Your task to perform on an android device: Open sound settings Image 0: 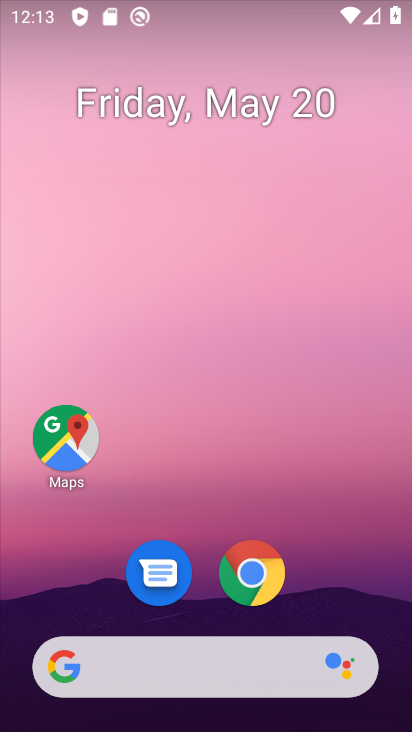
Step 0: drag from (327, 523) to (227, 62)
Your task to perform on an android device: Open sound settings Image 1: 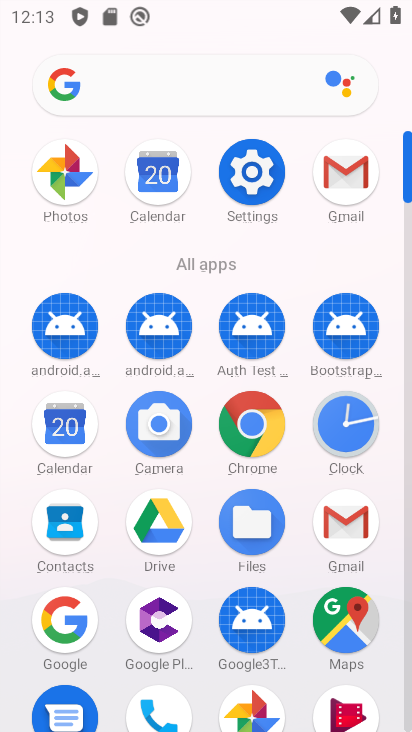
Step 1: click (244, 161)
Your task to perform on an android device: Open sound settings Image 2: 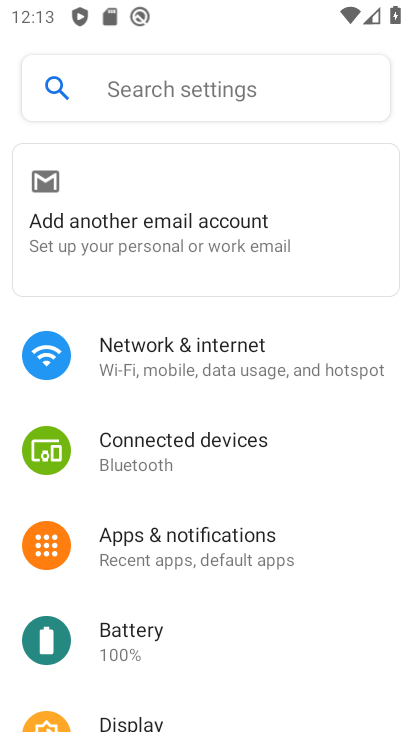
Step 2: drag from (244, 518) to (197, 99)
Your task to perform on an android device: Open sound settings Image 3: 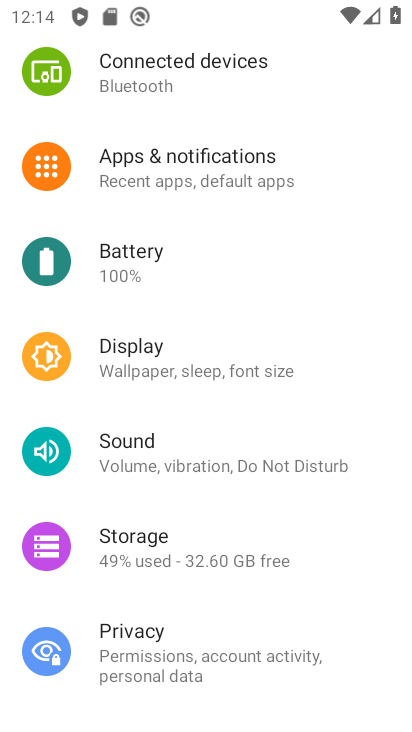
Step 3: drag from (209, 571) to (184, 270)
Your task to perform on an android device: Open sound settings Image 4: 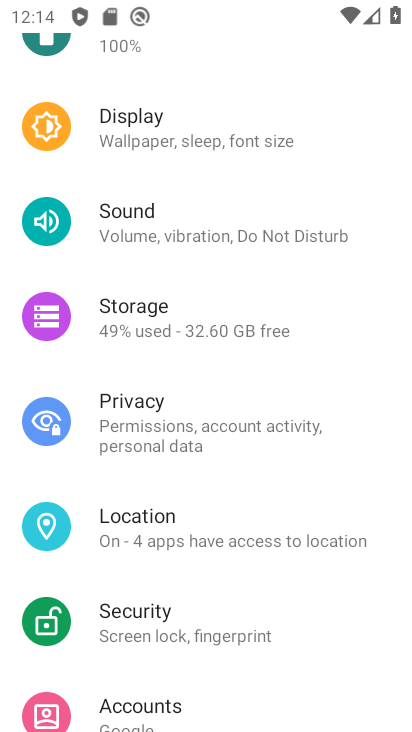
Step 4: drag from (171, 573) to (148, 308)
Your task to perform on an android device: Open sound settings Image 5: 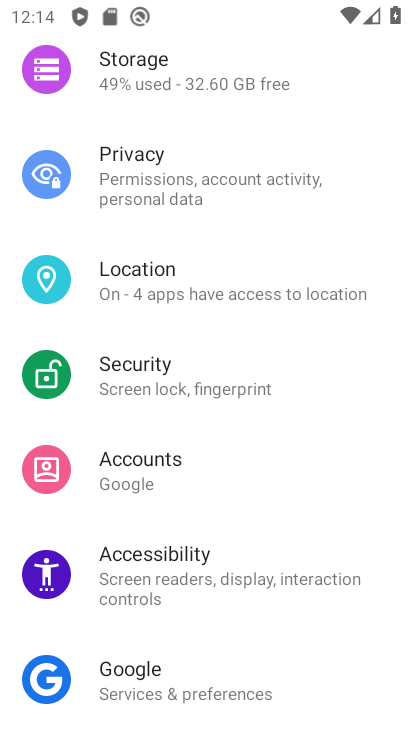
Step 5: drag from (216, 266) to (206, 687)
Your task to perform on an android device: Open sound settings Image 6: 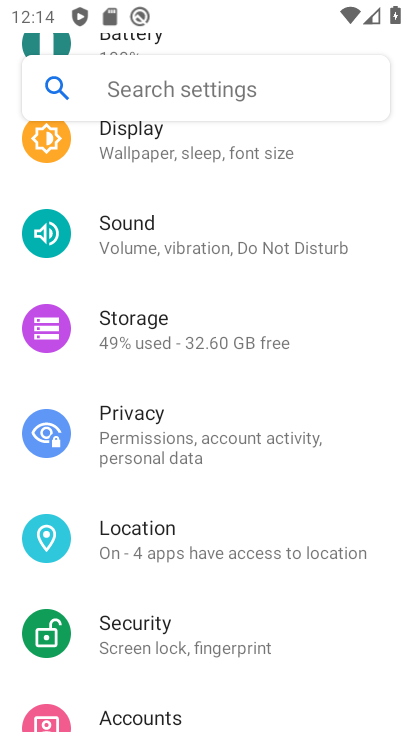
Step 6: click (135, 230)
Your task to perform on an android device: Open sound settings Image 7: 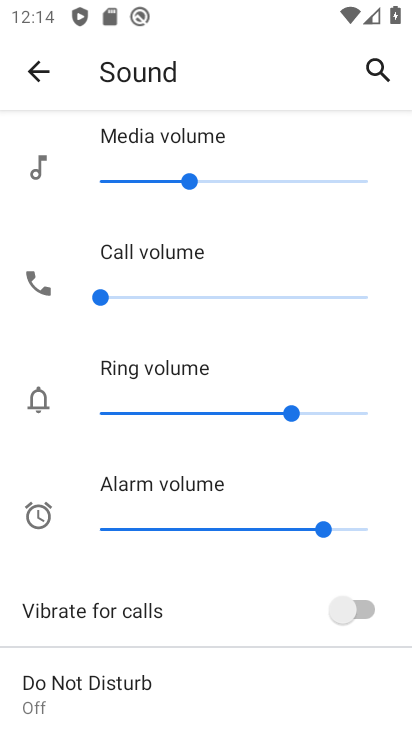
Step 7: task complete